Your task to perform on an android device: Search for logitech g pro on walmart.com, select the first entry, add it to the cart, then select checkout. Image 0: 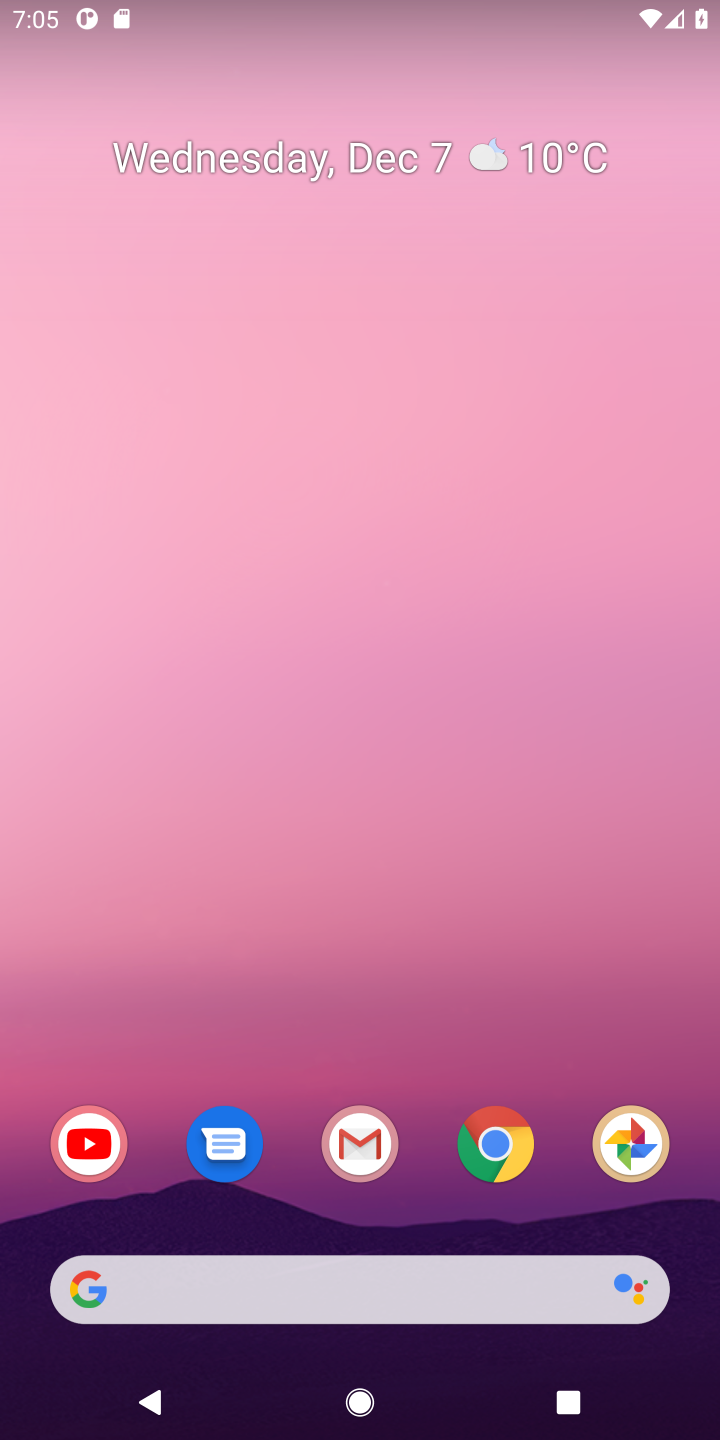
Step 0: press home button
Your task to perform on an android device: Search for logitech g pro on walmart.com, select the first entry, add it to the cart, then select checkout. Image 1: 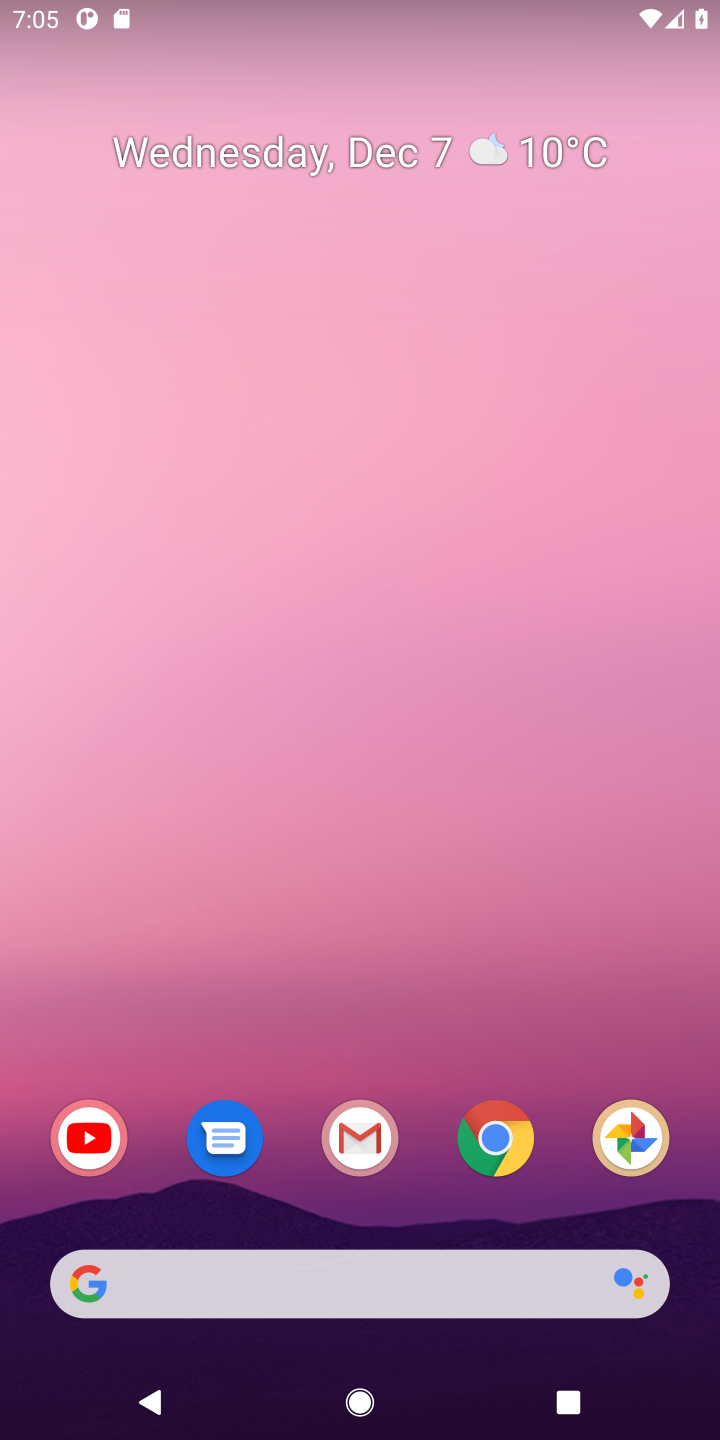
Step 1: click (215, 1283)
Your task to perform on an android device: Search for logitech g pro on walmart.com, select the first entry, add it to the cart, then select checkout. Image 2: 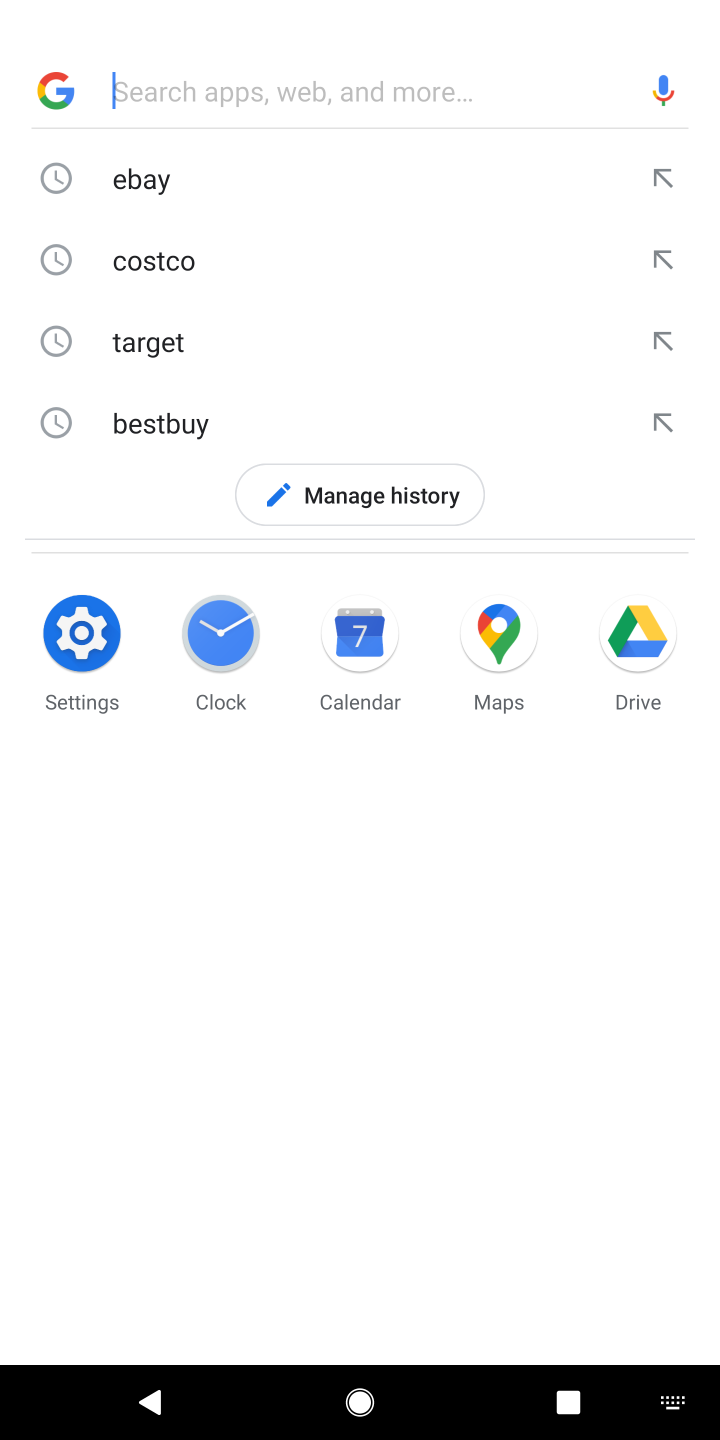
Step 2: type "walmart.com"
Your task to perform on an android device: Search for logitech g pro on walmart.com, select the first entry, add it to the cart, then select checkout. Image 3: 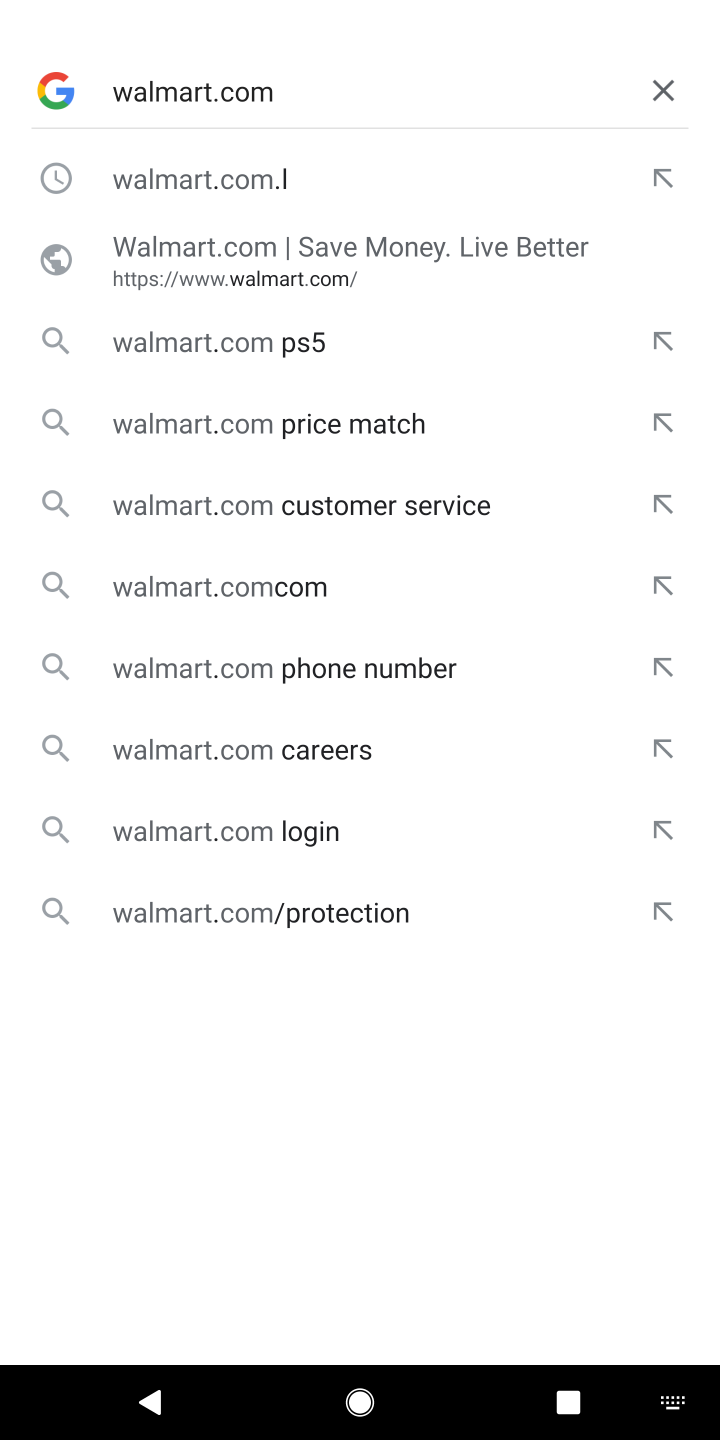
Step 3: press enter
Your task to perform on an android device: Search for logitech g pro on walmart.com, select the first entry, add it to the cart, then select checkout. Image 4: 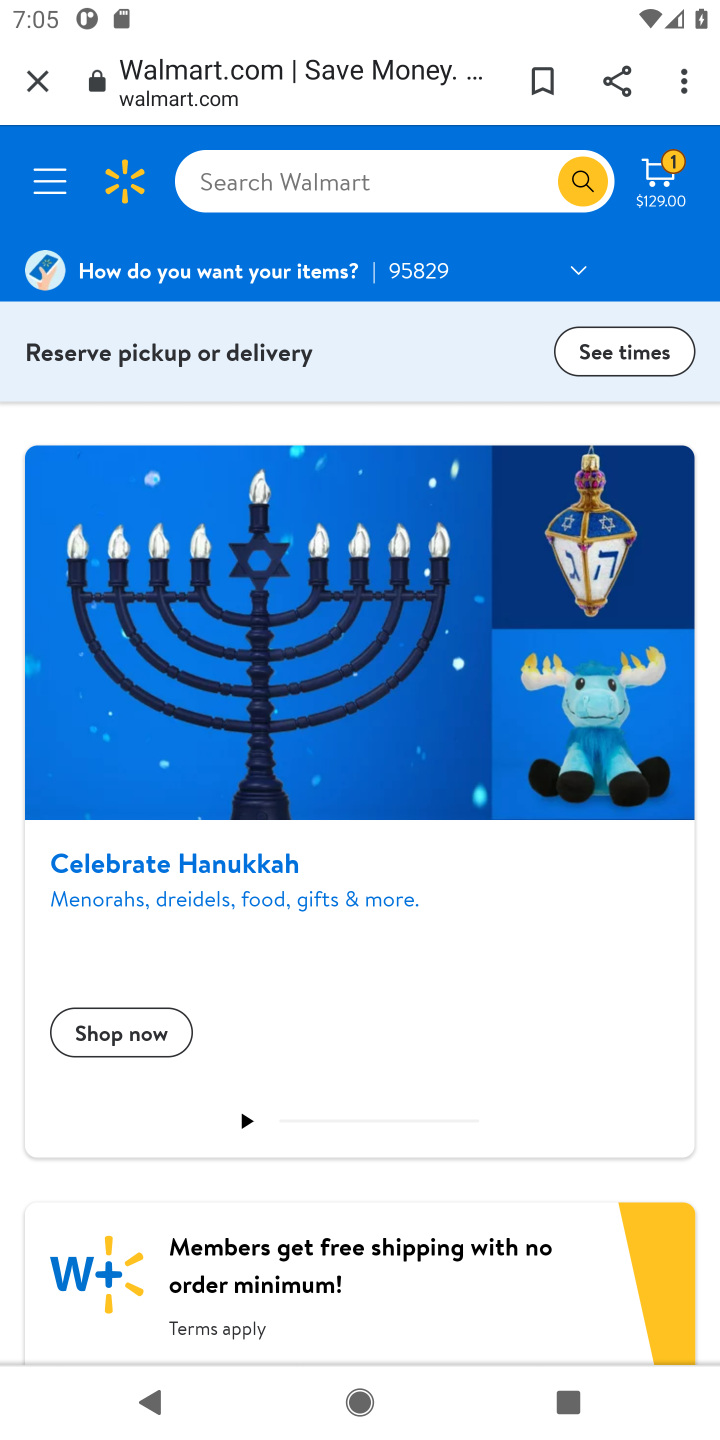
Step 4: click (241, 175)
Your task to perform on an android device: Search for logitech g pro on walmart.com, select the first entry, add it to the cart, then select checkout. Image 5: 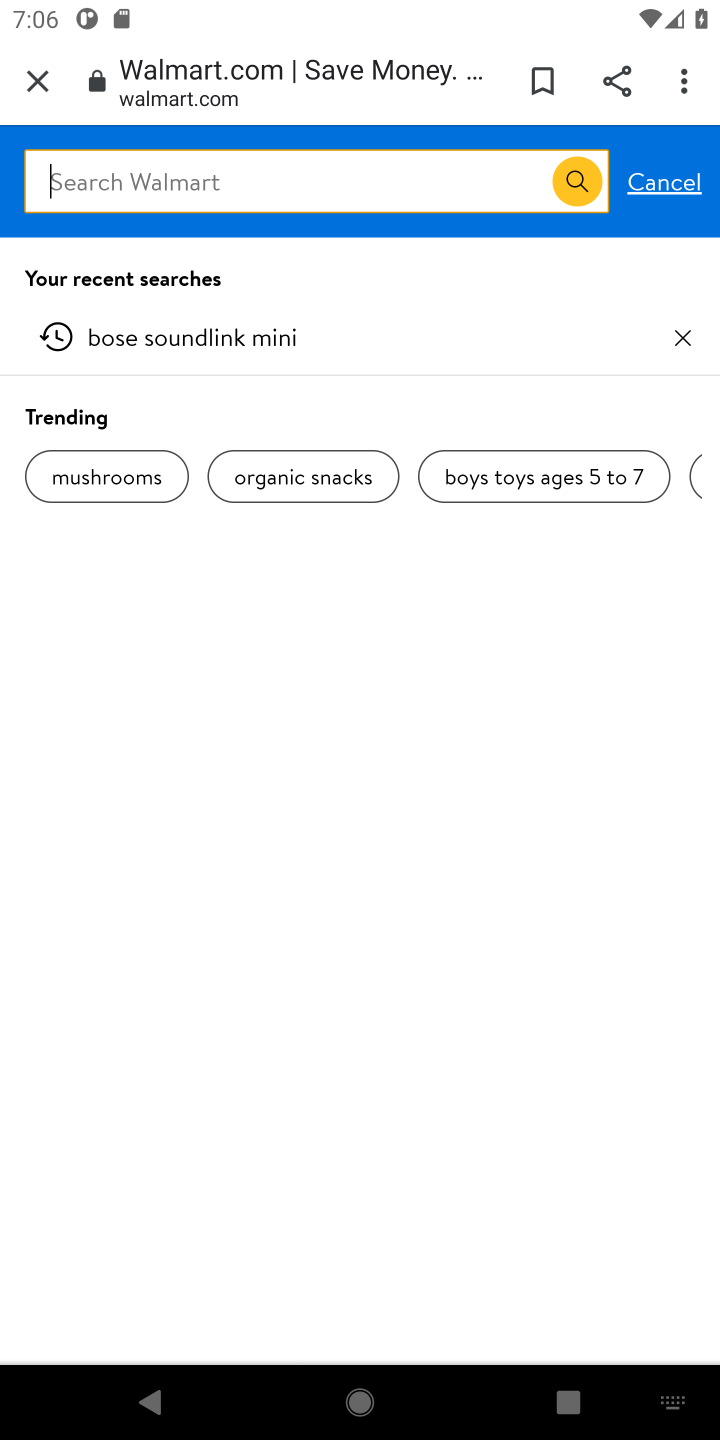
Step 5: type " logitech g pro"
Your task to perform on an android device: Search for logitech g pro on walmart.com, select the first entry, add it to the cart, then select checkout. Image 6: 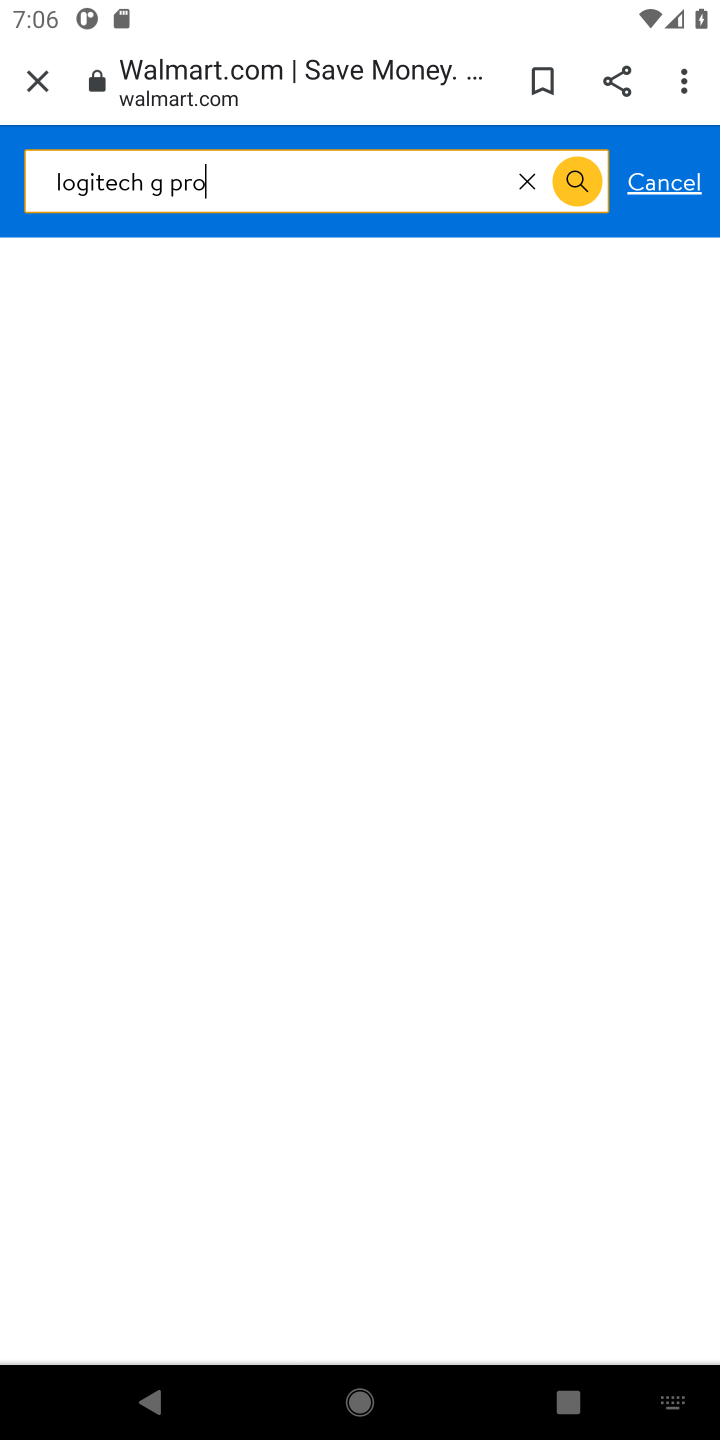
Step 6: press enter
Your task to perform on an android device: Search for logitech g pro on walmart.com, select the first entry, add it to the cart, then select checkout. Image 7: 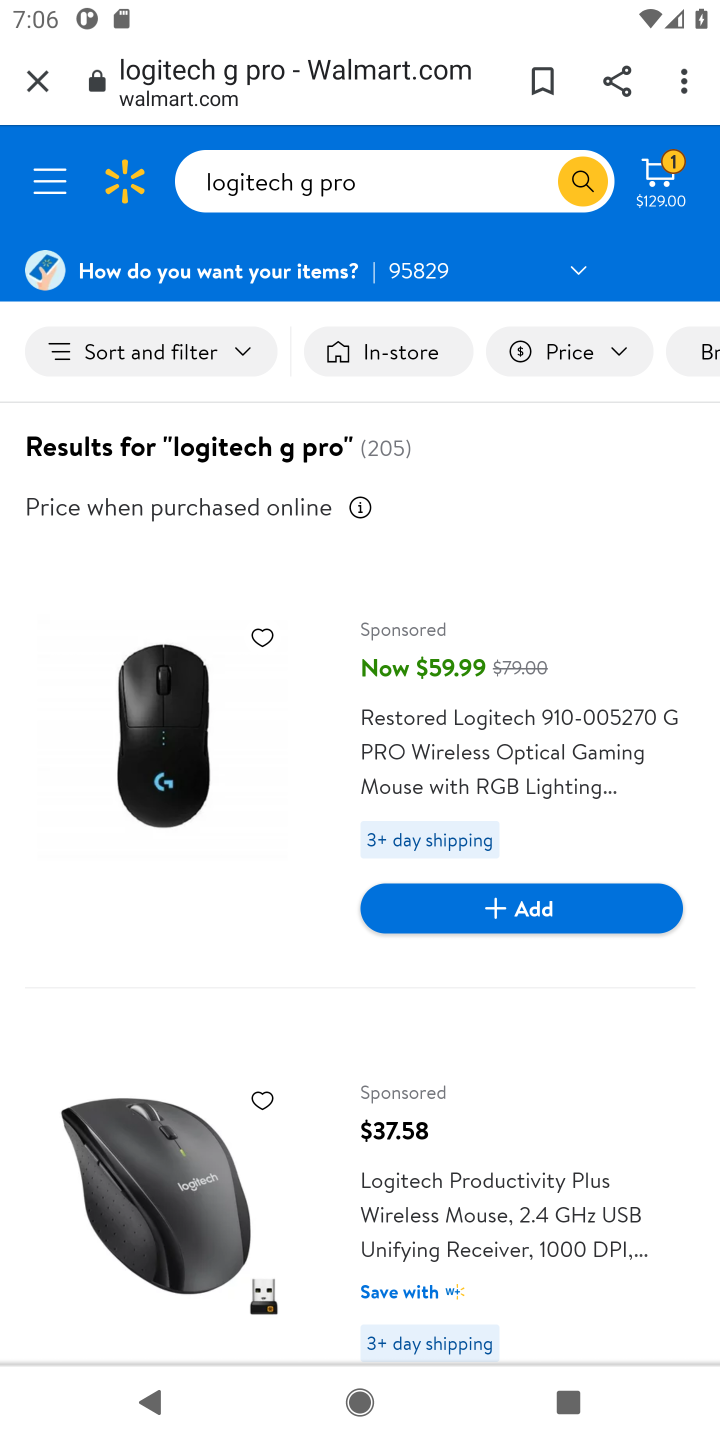
Step 7: drag from (509, 1120) to (527, 793)
Your task to perform on an android device: Search for logitech g pro on walmart.com, select the first entry, add it to the cart, then select checkout. Image 8: 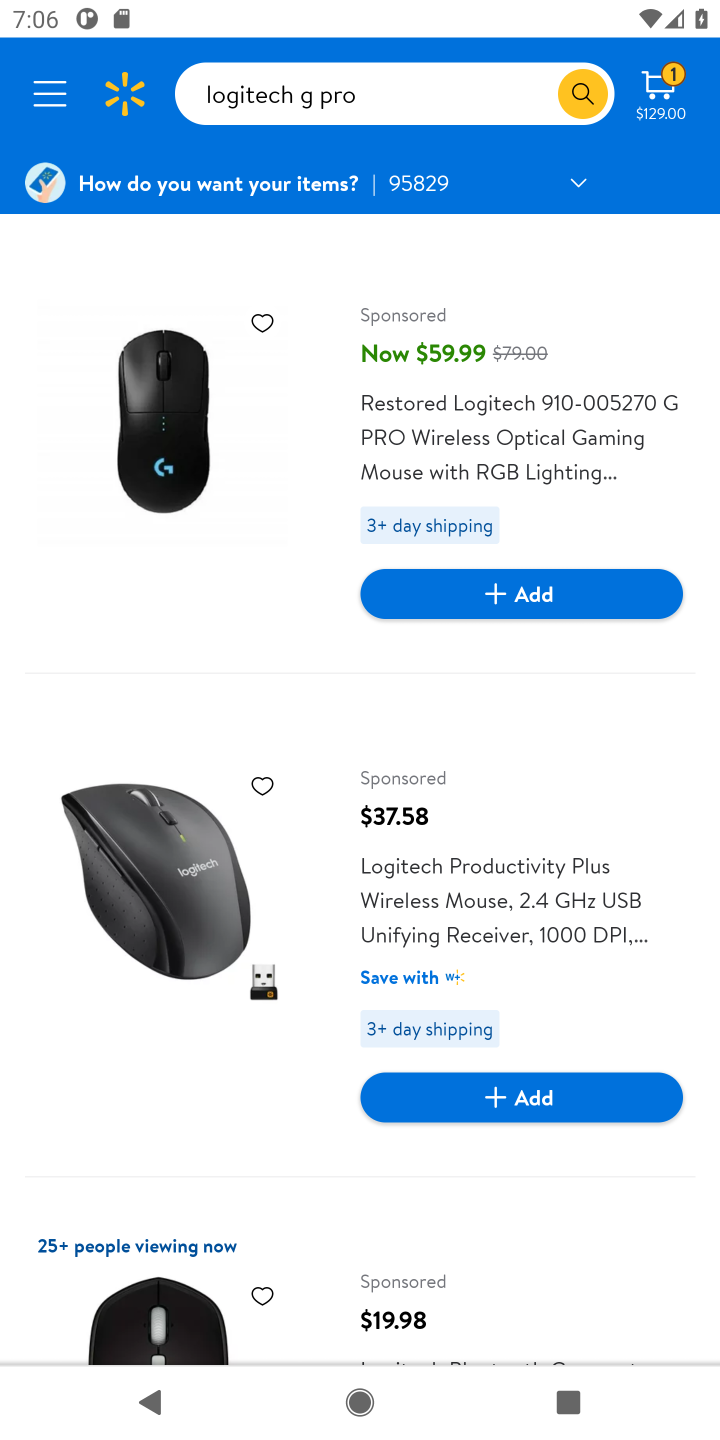
Step 8: click (546, 586)
Your task to perform on an android device: Search for logitech g pro on walmart.com, select the first entry, add it to the cart, then select checkout. Image 9: 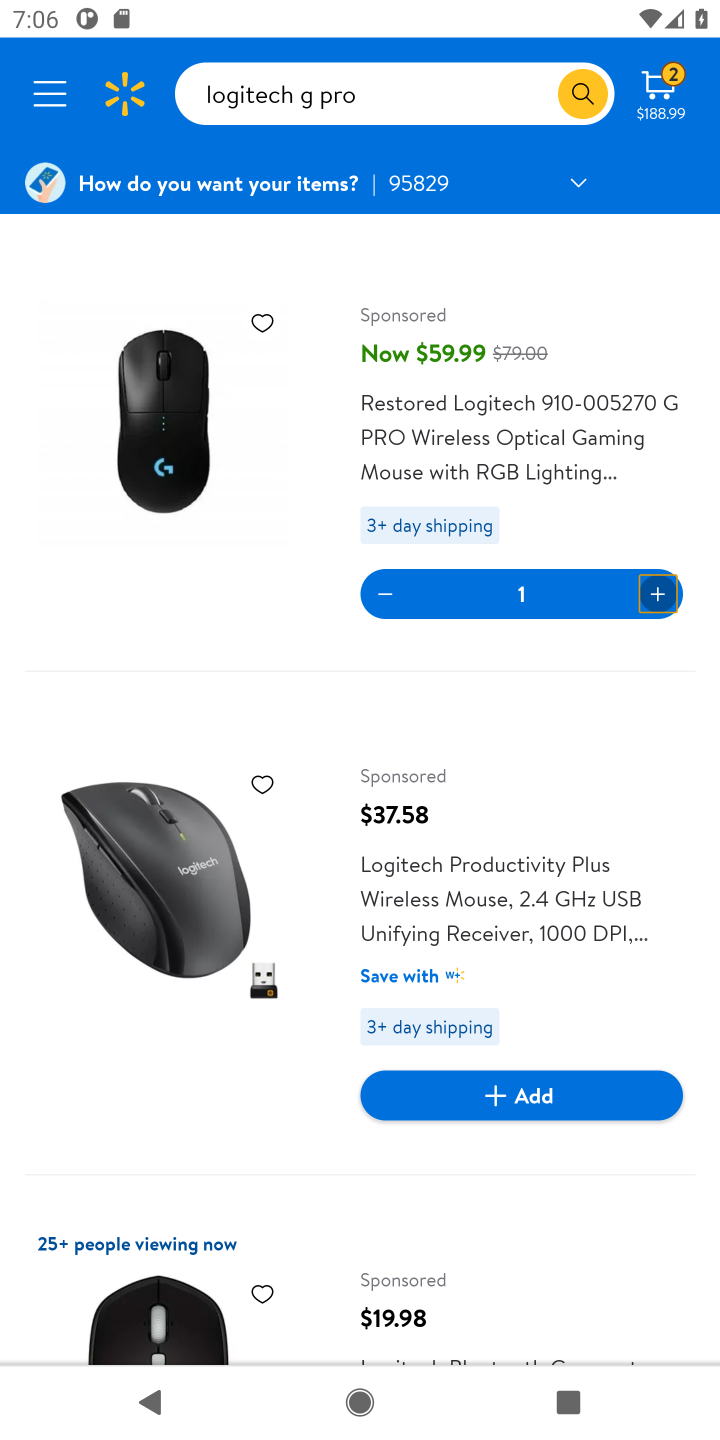
Step 9: click (646, 82)
Your task to perform on an android device: Search for logitech g pro on walmart.com, select the first entry, add it to the cart, then select checkout. Image 10: 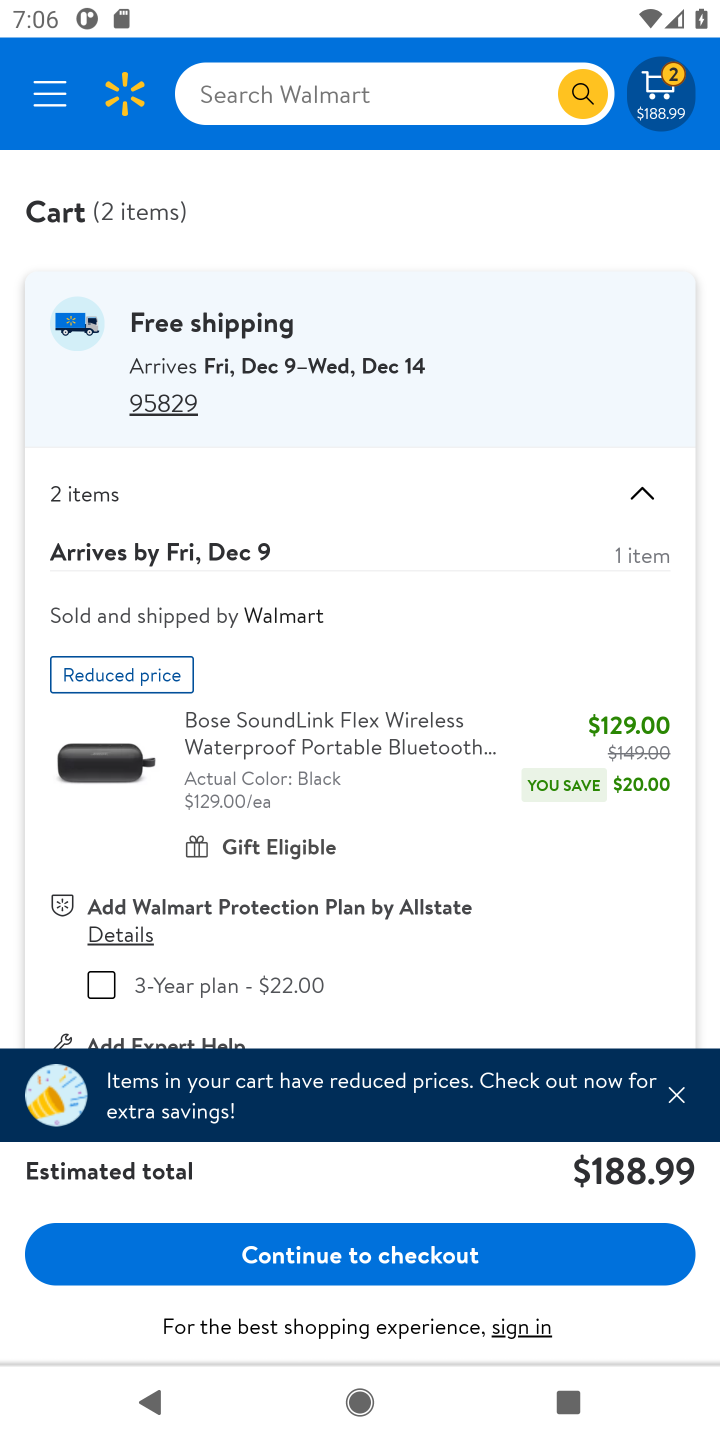
Step 10: click (314, 1269)
Your task to perform on an android device: Search for logitech g pro on walmart.com, select the first entry, add it to the cart, then select checkout. Image 11: 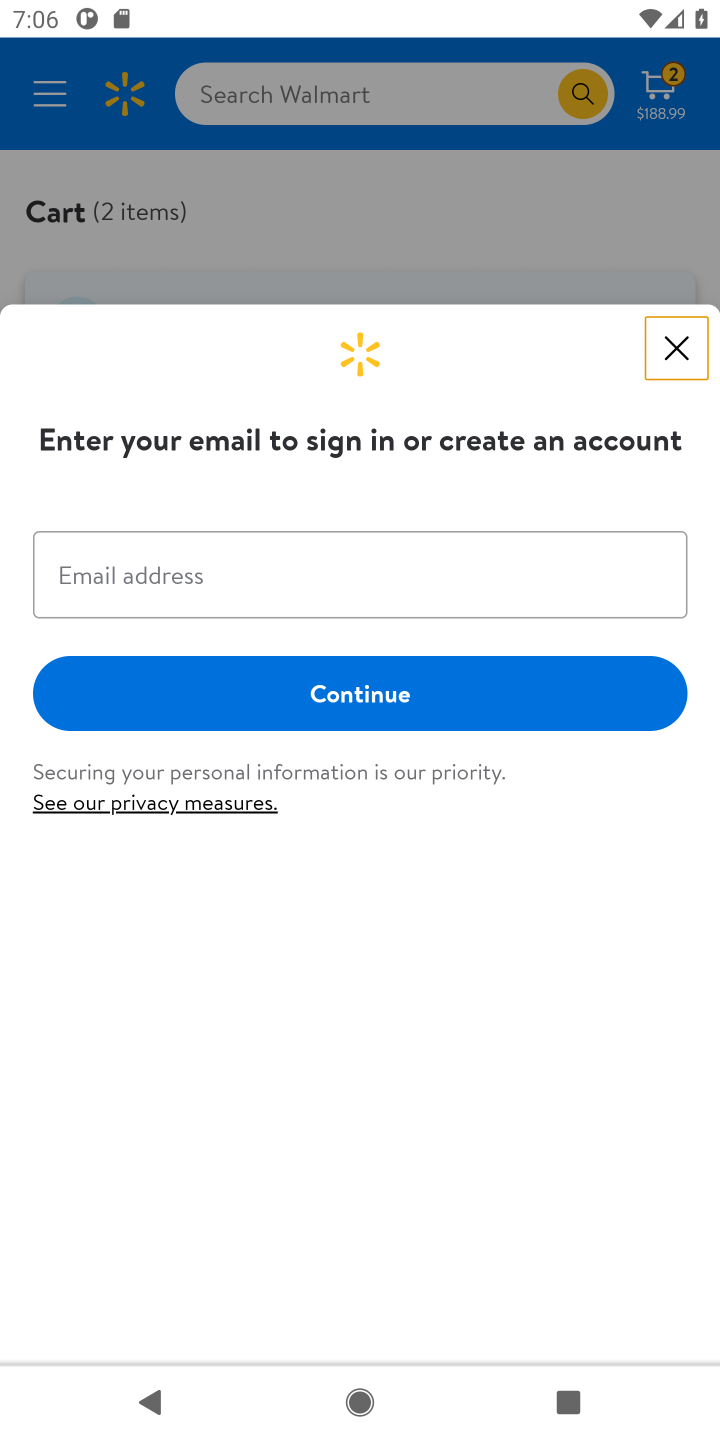
Step 11: task complete